Your task to perform on an android device: change the upload size in google photos Image 0: 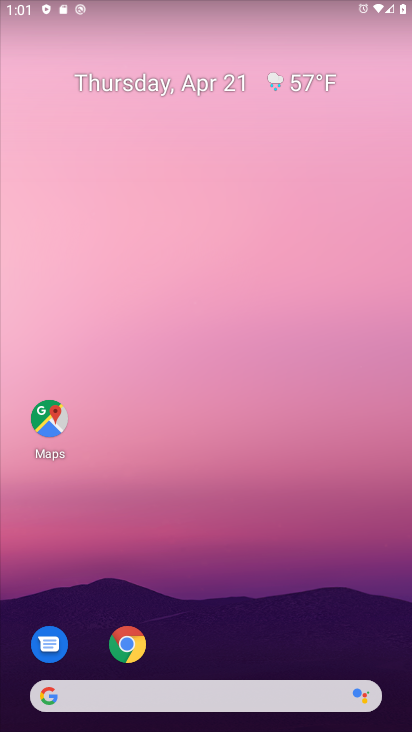
Step 0: drag from (183, 674) to (268, 54)
Your task to perform on an android device: change the upload size in google photos Image 1: 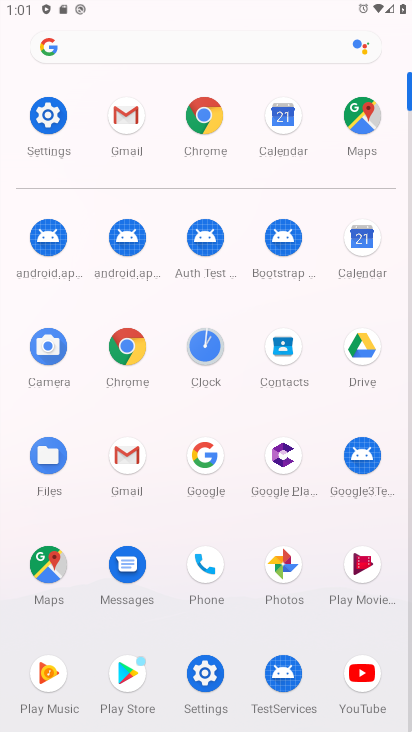
Step 1: click (284, 562)
Your task to perform on an android device: change the upload size in google photos Image 2: 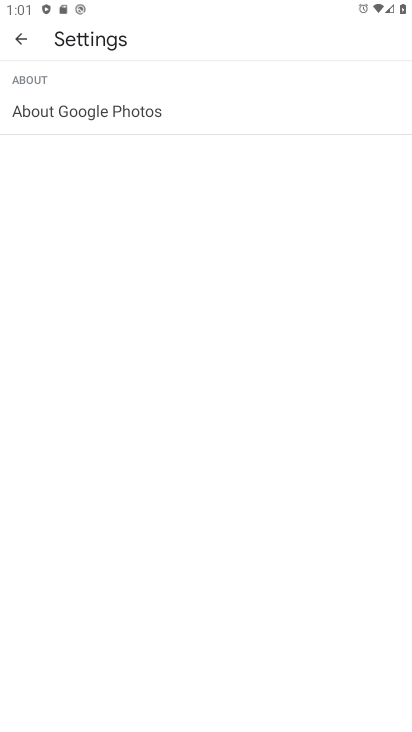
Step 2: click (9, 27)
Your task to perform on an android device: change the upload size in google photos Image 3: 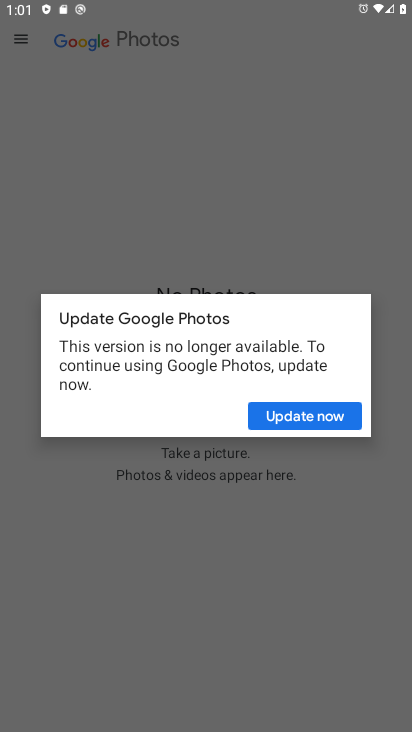
Step 3: click (278, 421)
Your task to perform on an android device: change the upload size in google photos Image 4: 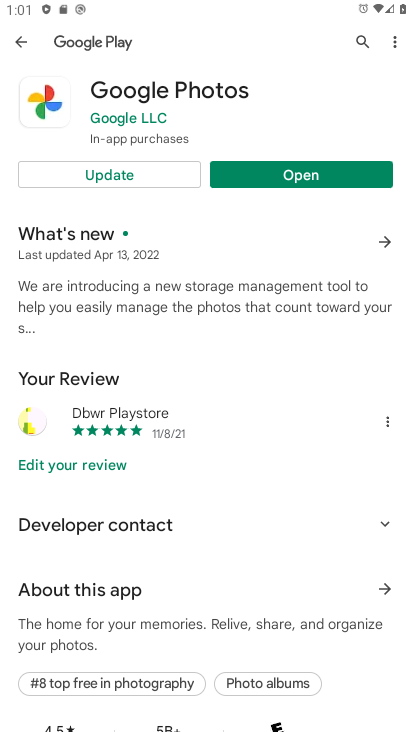
Step 4: click (276, 172)
Your task to perform on an android device: change the upload size in google photos Image 5: 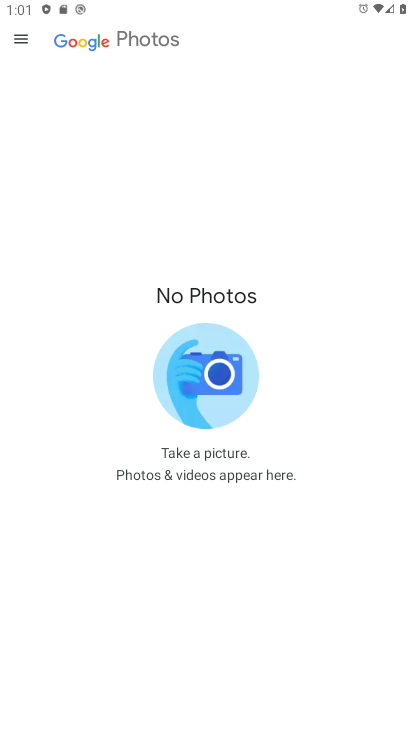
Step 5: click (16, 28)
Your task to perform on an android device: change the upload size in google photos Image 6: 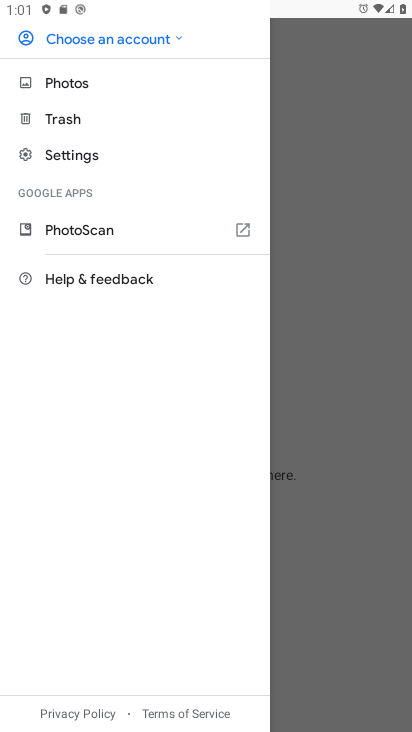
Step 6: click (68, 151)
Your task to perform on an android device: change the upload size in google photos Image 7: 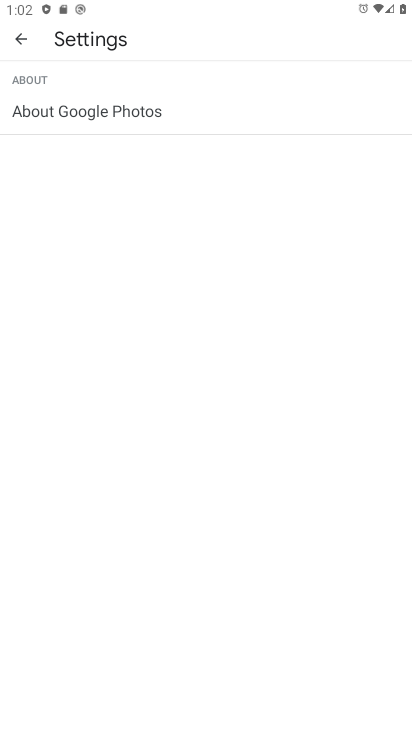
Step 7: click (19, 48)
Your task to perform on an android device: change the upload size in google photos Image 8: 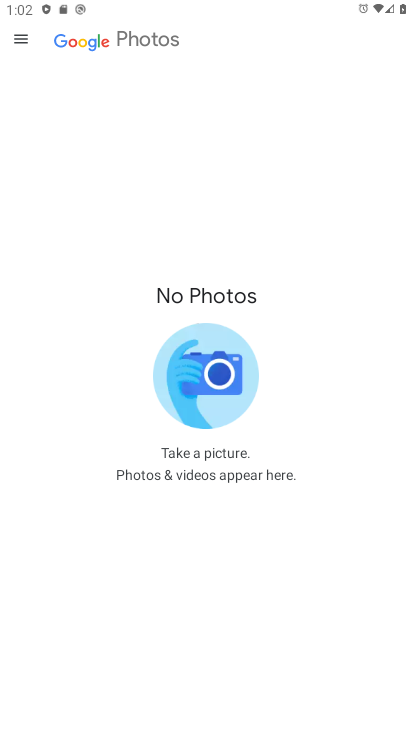
Step 8: click (32, 37)
Your task to perform on an android device: change the upload size in google photos Image 9: 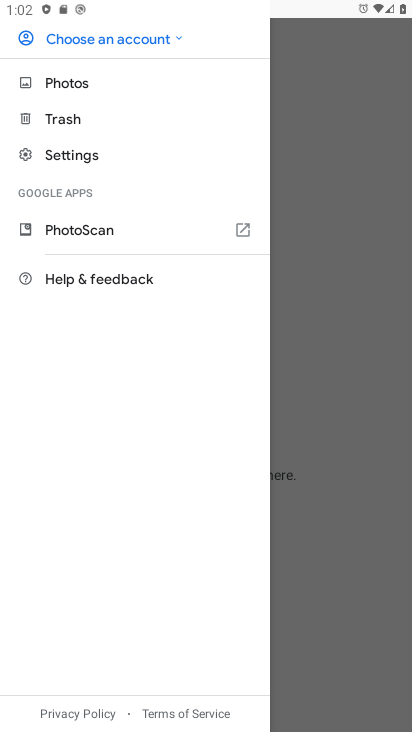
Step 9: click (87, 41)
Your task to perform on an android device: change the upload size in google photos Image 10: 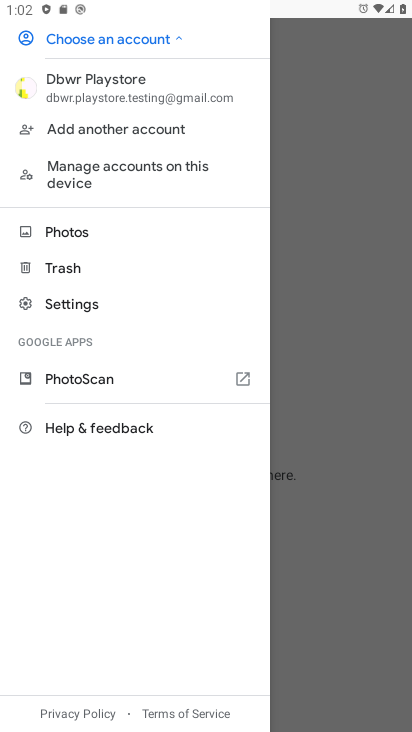
Step 10: click (106, 95)
Your task to perform on an android device: change the upload size in google photos Image 11: 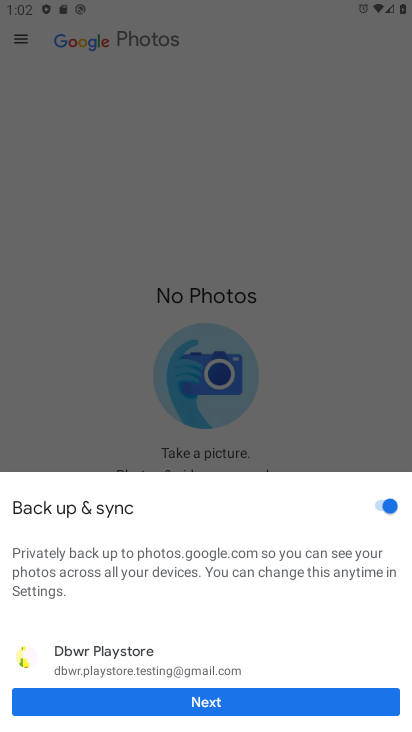
Step 11: click (176, 699)
Your task to perform on an android device: change the upload size in google photos Image 12: 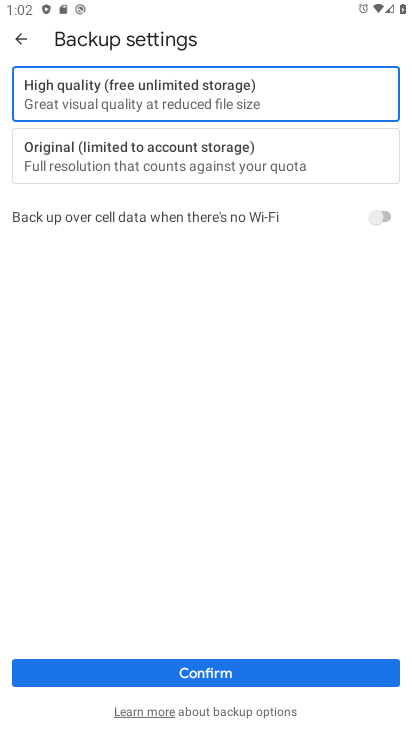
Step 12: click (131, 143)
Your task to perform on an android device: change the upload size in google photos Image 13: 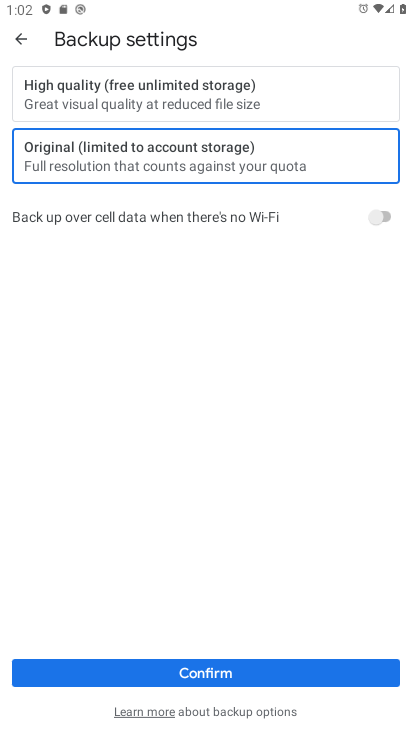
Step 13: click (199, 667)
Your task to perform on an android device: change the upload size in google photos Image 14: 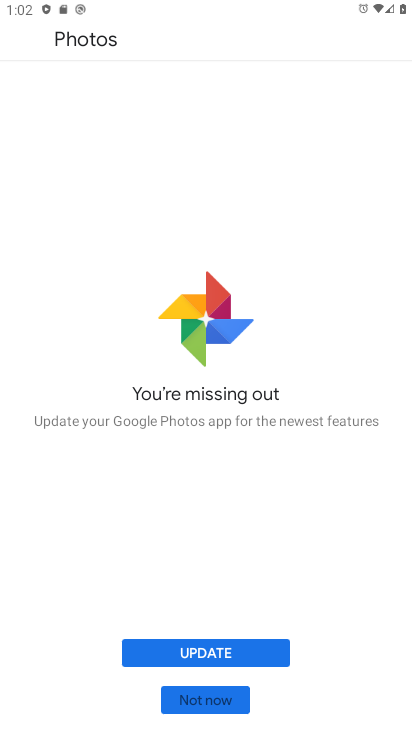
Step 14: task complete